Your task to perform on an android device: Open Google Image 0: 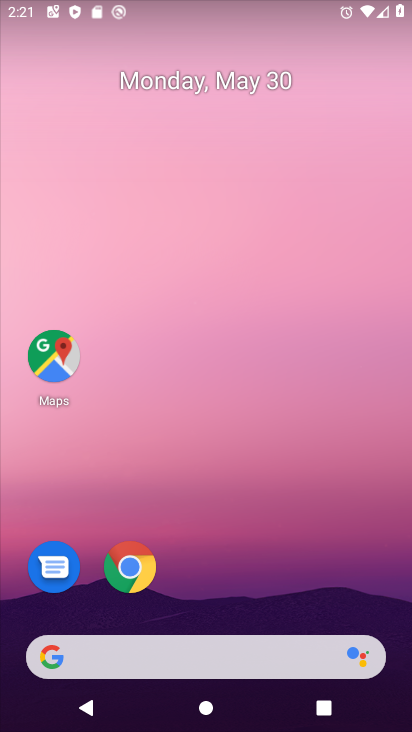
Step 0: click (129, 665)
Your task to perform on an android device: Open Google Image 1: 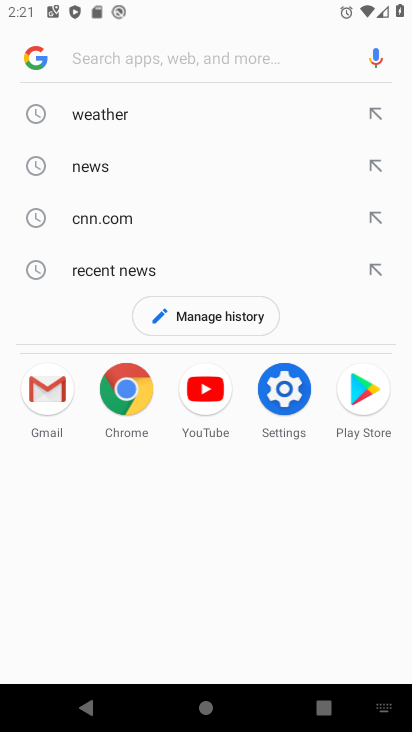
Step 1: click (31, 57)
Your task to perform on an android device: Open Google Image 2: 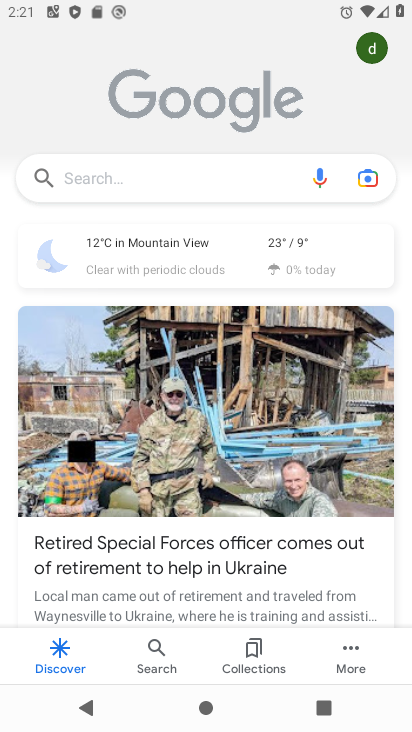
Step 2: task complete